Your task to perform on an android device: toggle wifi Image 0: 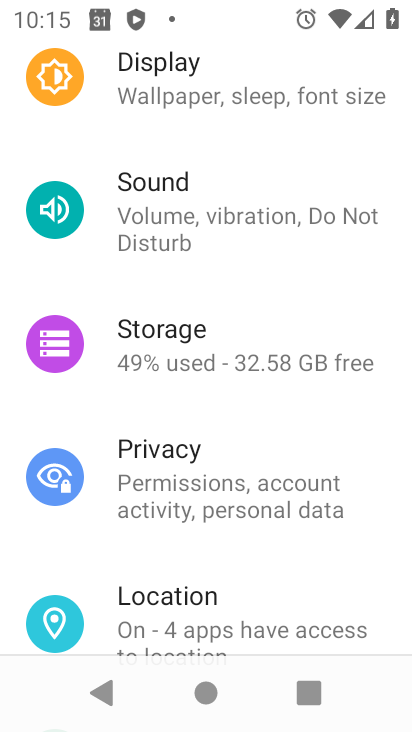
Step 0: press home button
Your task to perform on an android device: toggle wifi Image 1: 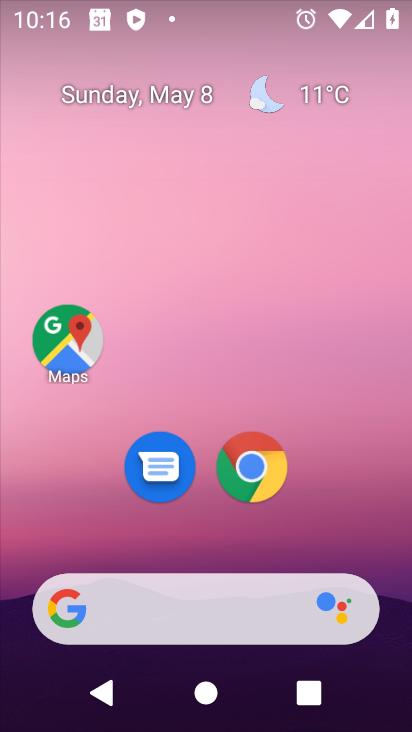
Step 1: drag from (35, 636) to (306, 209)
Your task to perform on an android device: toggle wifi Image 2: 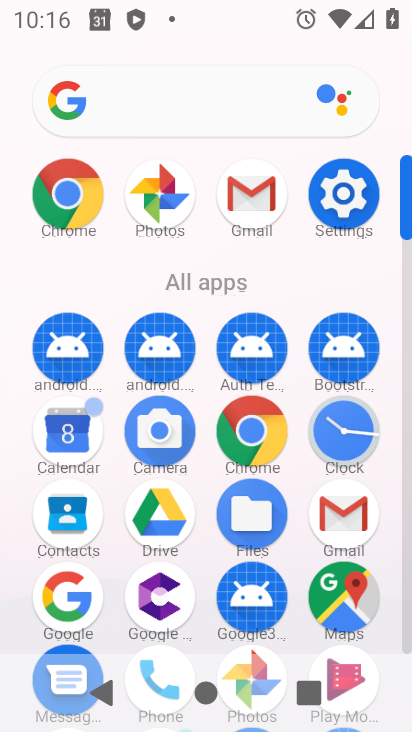
Step 2: click (342, 179)
Your task to perform on an android device: toggle wifi Image 3: 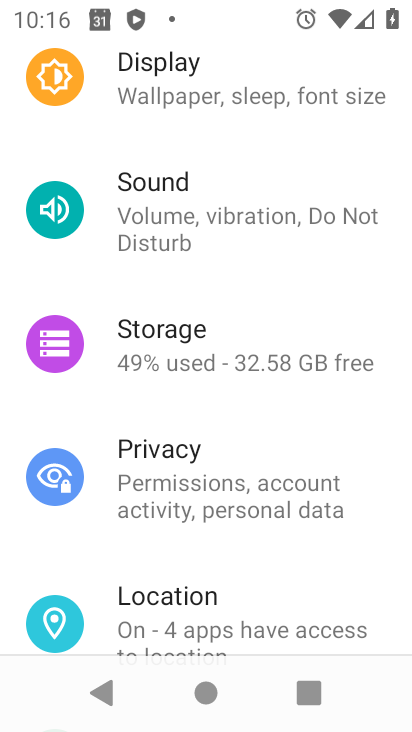
Step 3: drag from (171, 152) to (102, 558)
Your task to perform on an android device: toggle wifi Image 4: 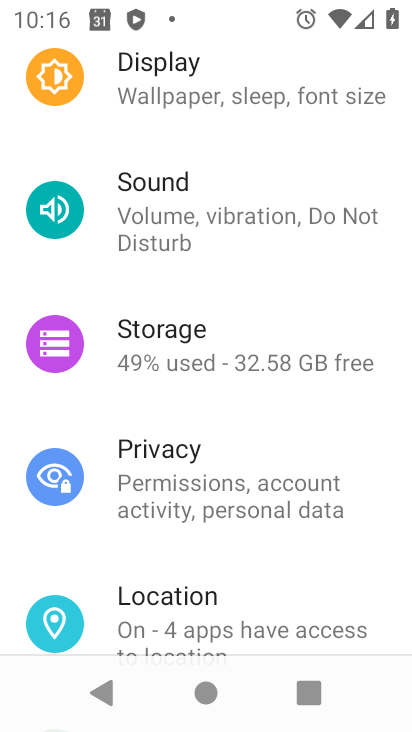
Step 4: drag from (130, 201) to (158, 729)
Your task to perform on an android device: toggle wifi Image 5: 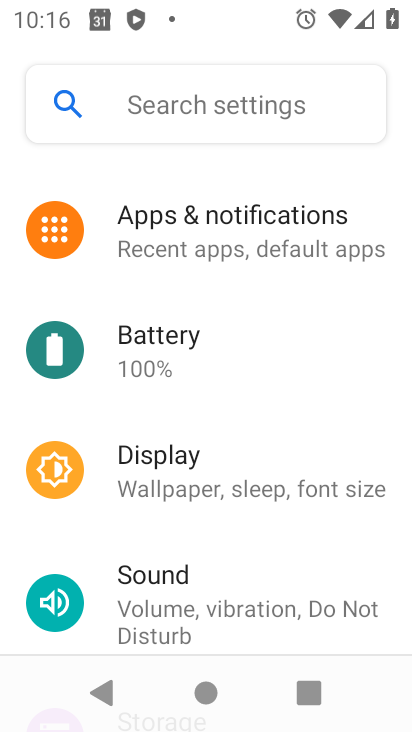
Step 5: drag from (137, 154) to (152, 420)
Your task to perform on an android device: toggle wifi Image 6: 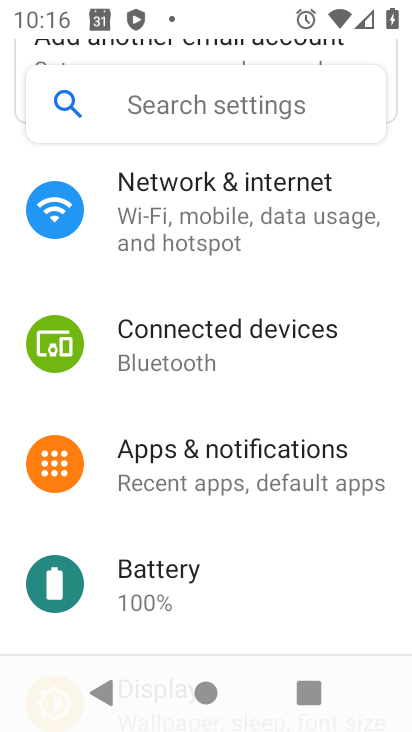
Step 6: drag from (184, 191) to (185, 592)
Your task to perform on an android device: toggle wifi Image 7: 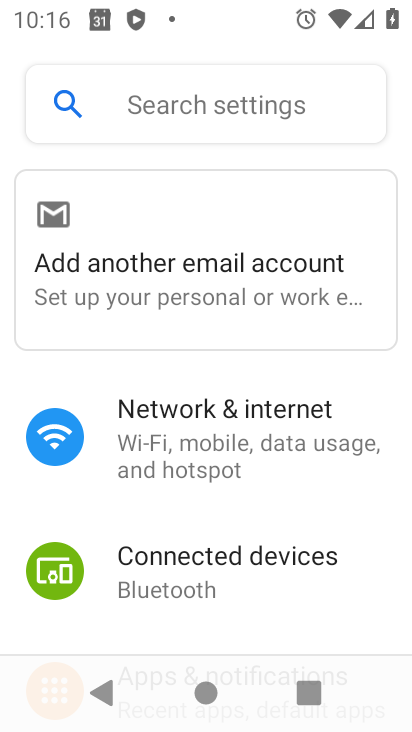
Step 7: click (188, 431)
Your task to perform on an android device: toggle wifi Image 8: 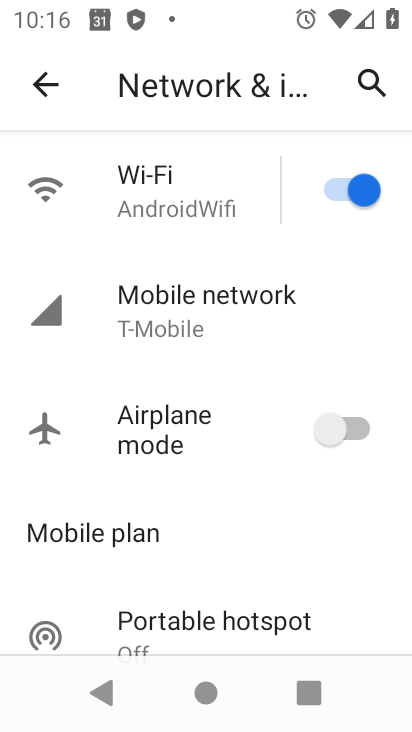
Step 8: click (362, 179)
Your task to perform on an android device: toggle wifi Image 9: 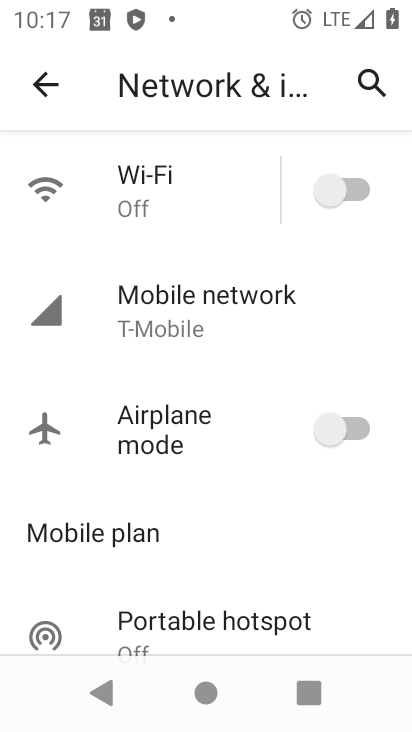
Step 9: task complete